Your task to perform on an android device: add a label to a message in the gmail app Image 0: 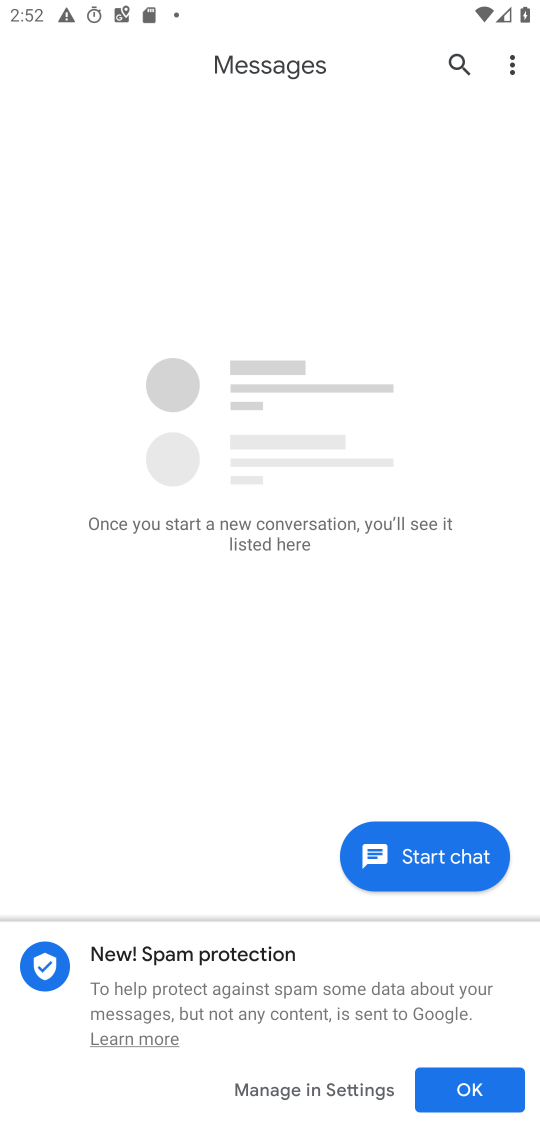
Step 0: press home button
Your task to perform on an android device: add a label to a message in the gmail app Image 1: 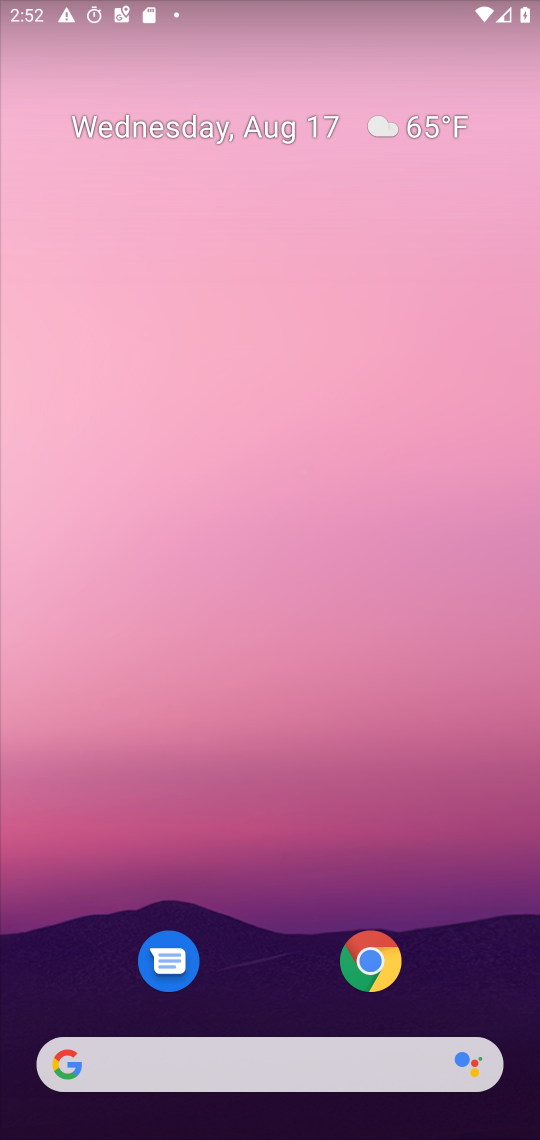
Step 1: drag from (350, 924) to (387, 265)
Your task to perform on an android device: add a label to a message in the gmail app Image 2: 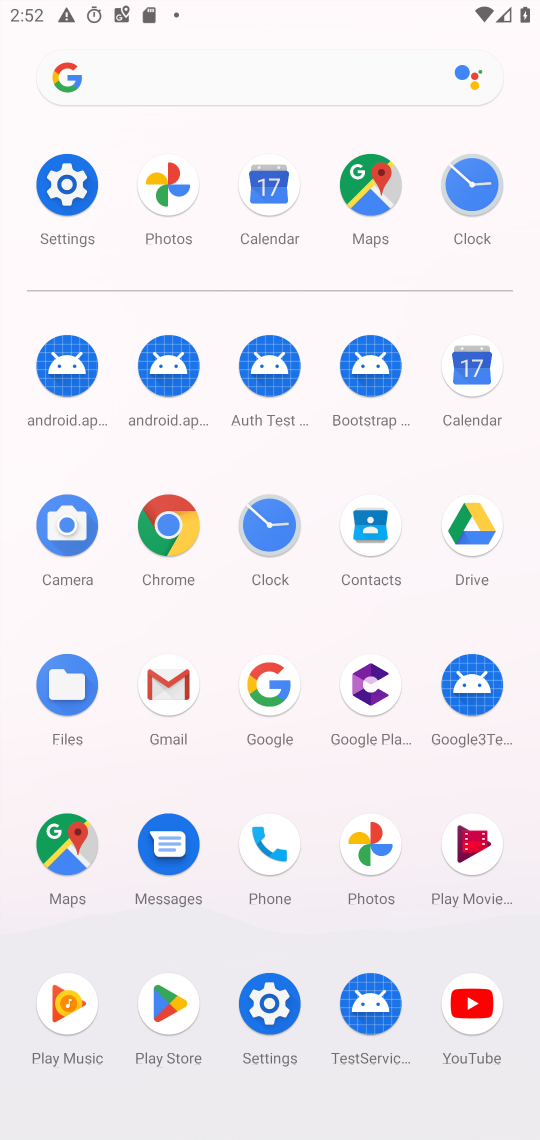
Step 2: click (180, 693)
Your task to perform on an android device: add a label to a message in the gmail app Image 3: 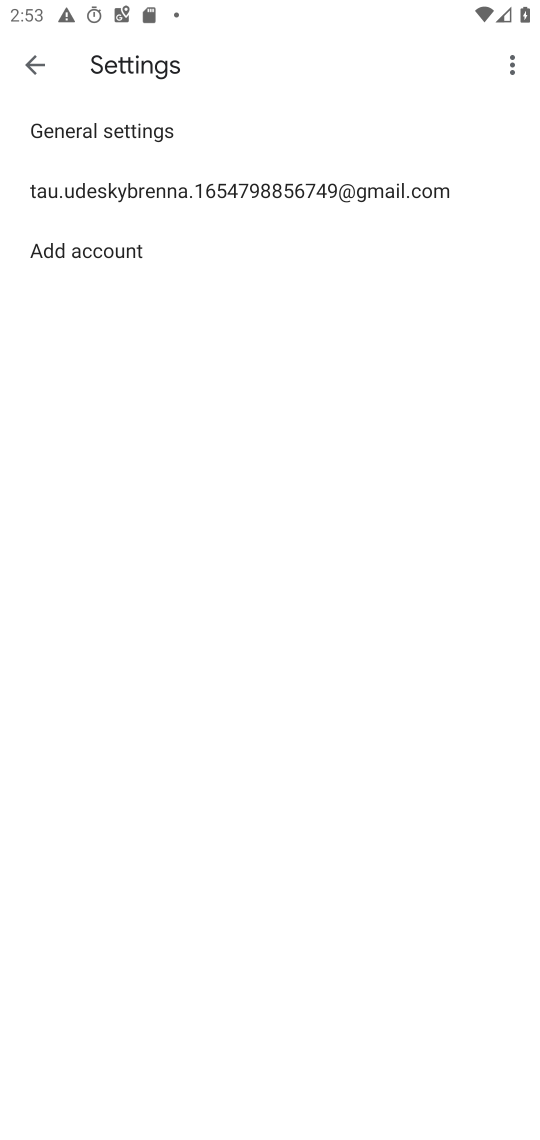
Step 3: click (40, 60)
Your task to perform on an android device: add a label to a message in the gmail app Image 4: 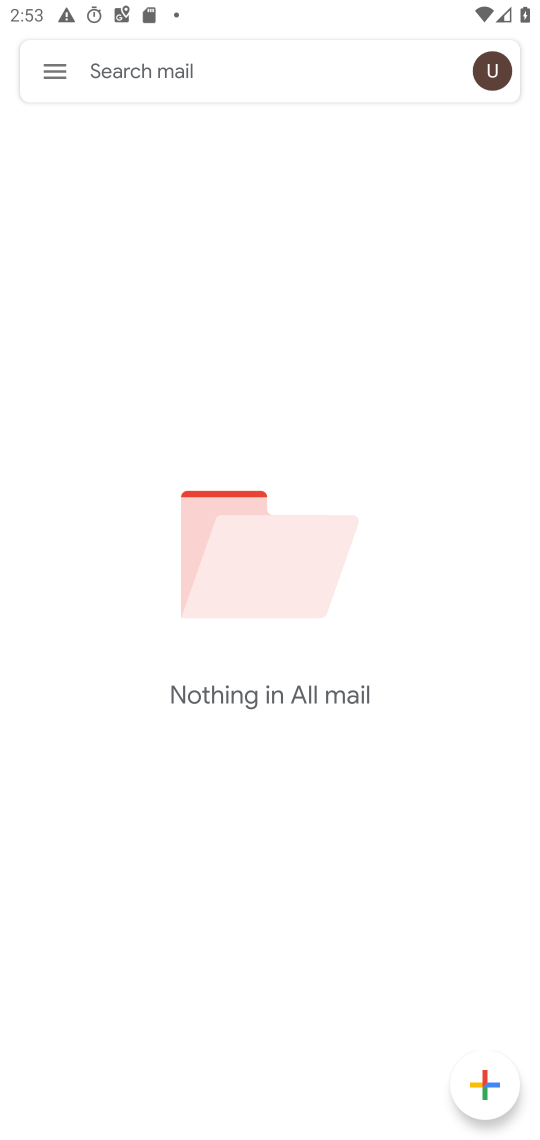
Step 4: click (55, 64)
Your task to perform on an android device: add a label to a message in the gmail app Image 5: 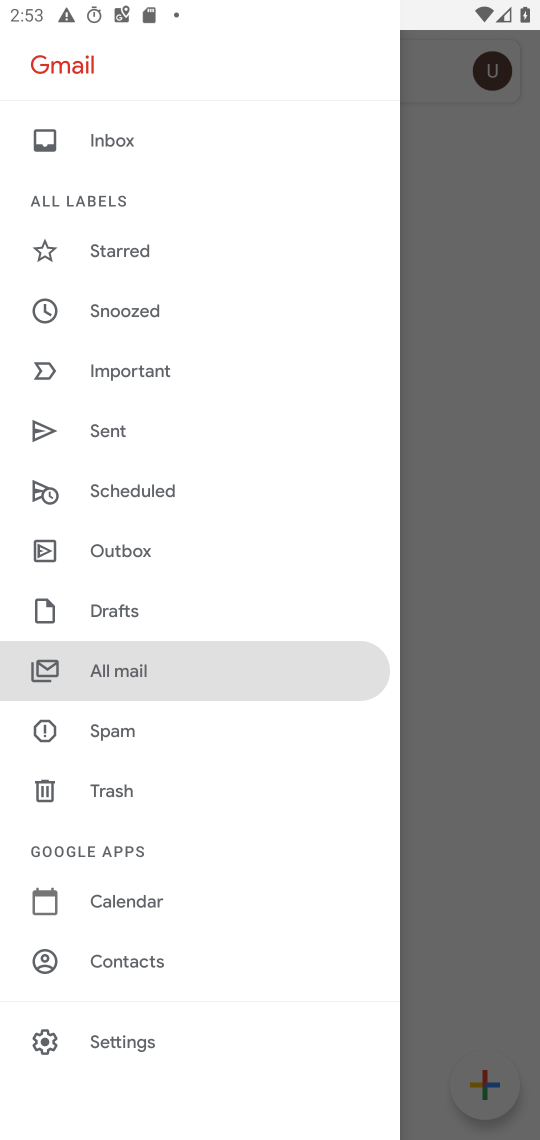
Step 5: click (157, 683)
Your task to perform on an android device: add a label to a message in the gmail app Image 6: 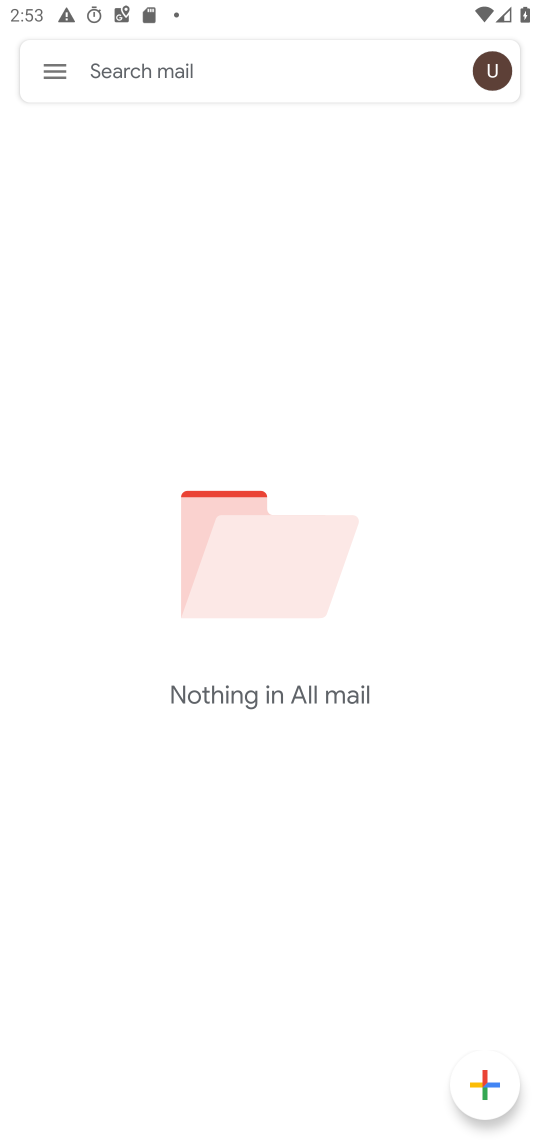
Step 6: task complete